Your task to perform on an android device: set the stopwatch Image 0: 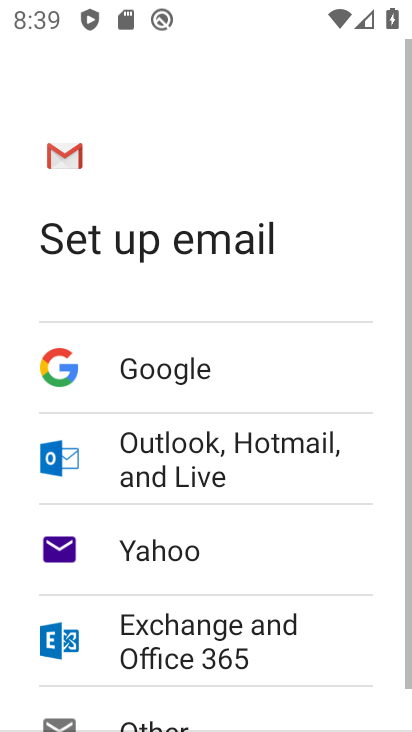
Step 0: press home button
Your task to perform on an android device: set the stopwatch Image 1: 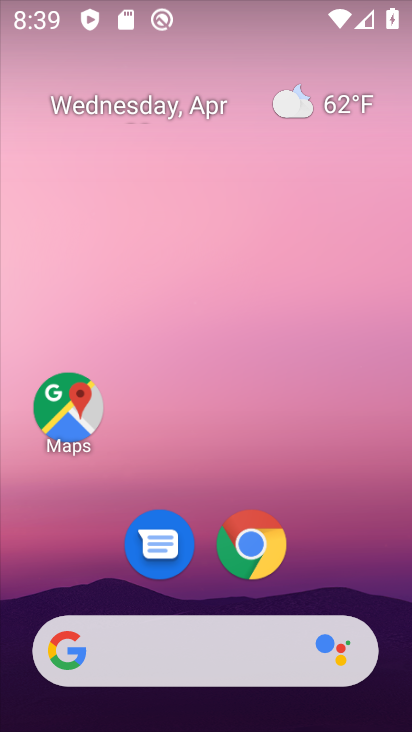
Step 1: drag from (326, 564) to (233, 114)
Your task to perform on an android device: set the stopwatch Image 2: 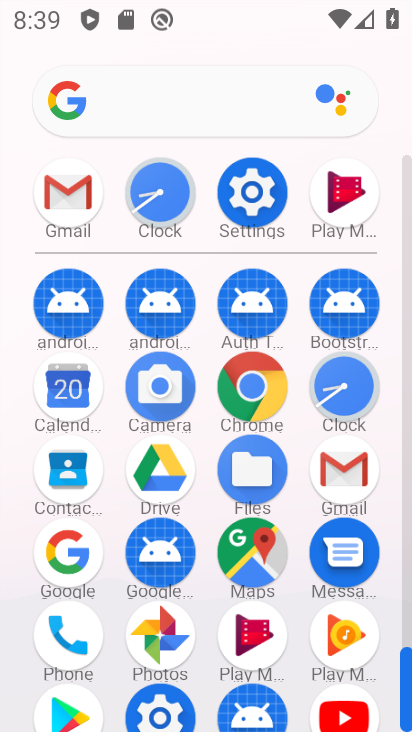
Step 2: click (182, 199)
Your task to perform on an android device: set the stopwatch Image 3: 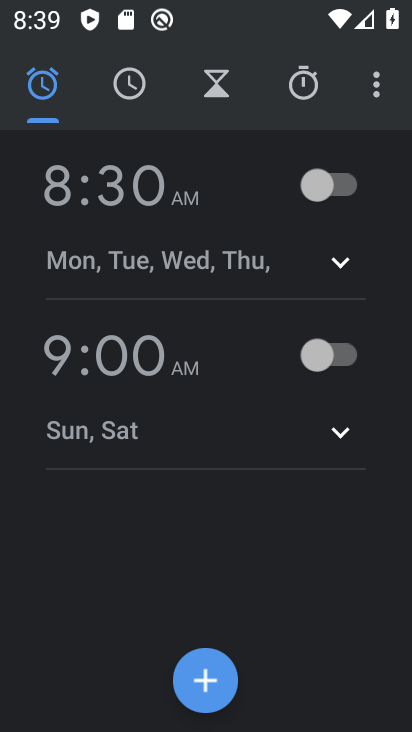
Step 3: click (304, 101)
Your task to perform on an android device: set the stopwatch Image 4: 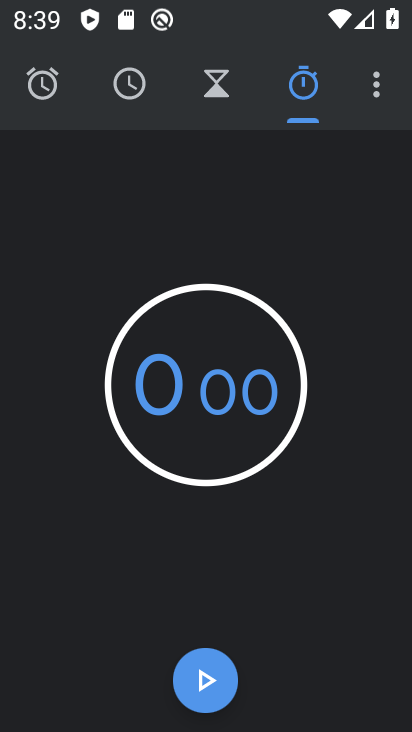
Step 4: click (212, 687)
Your task to perform on an android device: set the stopwatch Image 5: 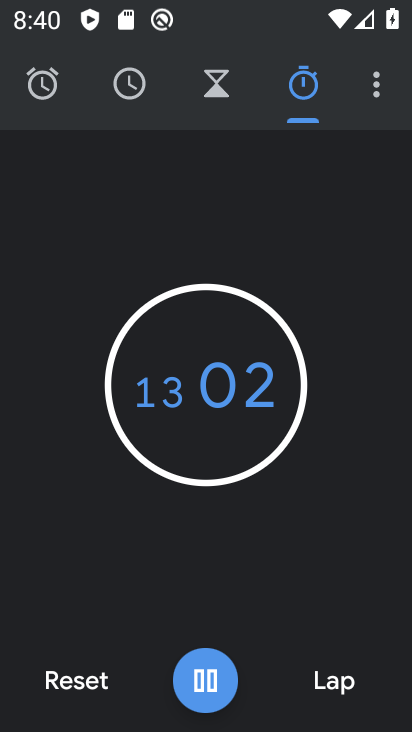
Step 5: click (217, 679)
Your task to perform on an android device: set the stopwatch Image 6: 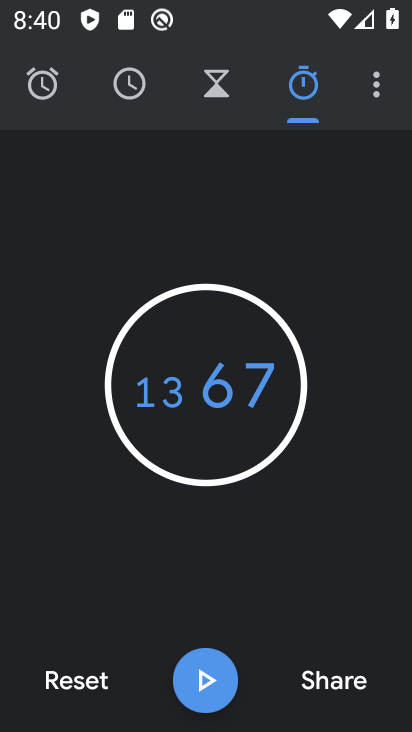
Step 6: task complete